Your task to perform on an android device: turn off improve location accuracy Image 0: 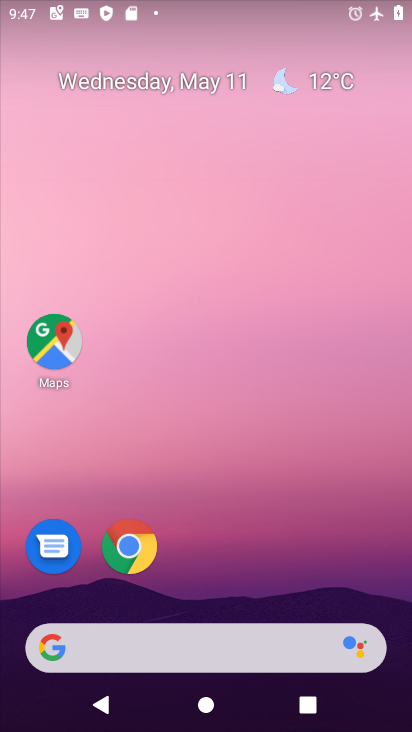
Step 0: drag from (396, 615) to (281, 179)
Your task to perform on an android device: turn off improve location accuracy Image 1: 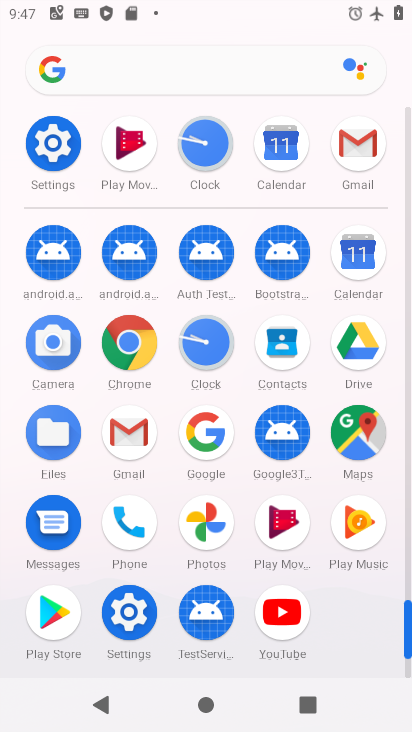
Step 1: click (131, 612)
Your task to perform on an android device: turn off improve location accuracy Image 2: 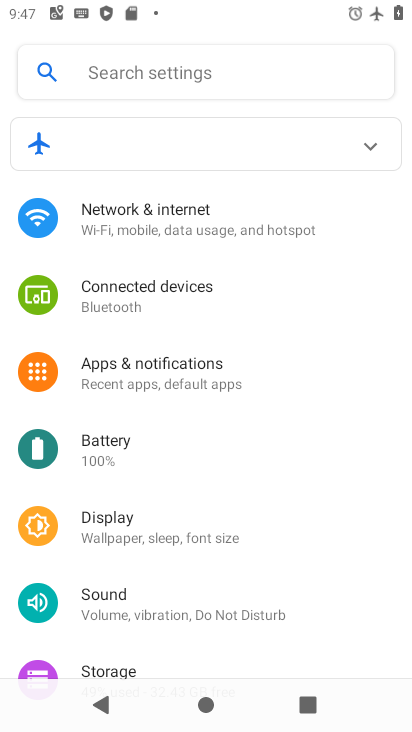
Step 2: drag from (301, 619) to (292, 268)
Your task to perform on an android device: turn off improve location accuracy Image 3: 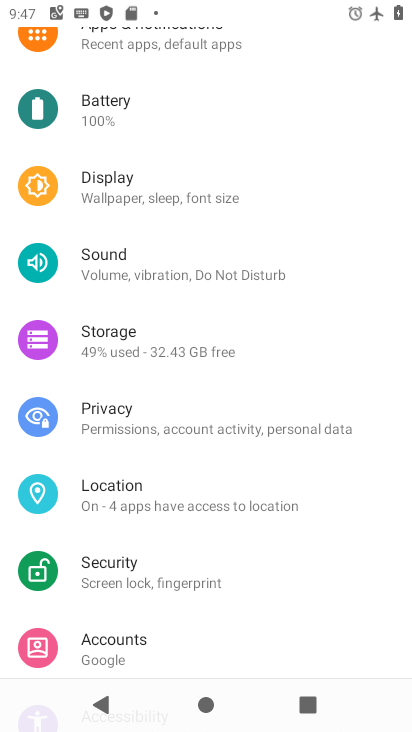
Step 3: click (114, 487)
Your task to perform on an android device: turn off improve location accuracy Image 4: 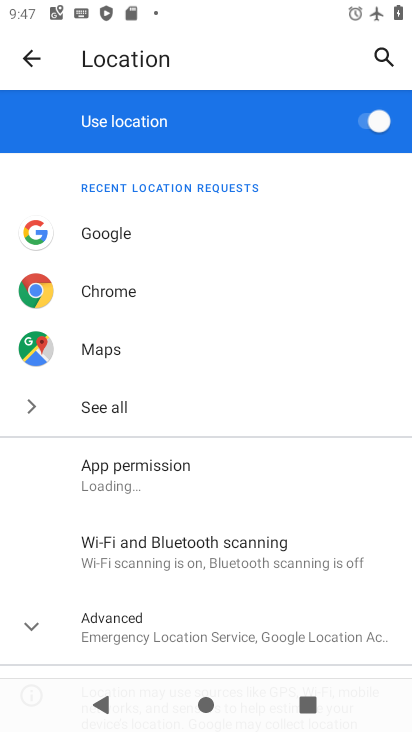
Step 4: click (23, 628)
Your task to perform on an android device: turn off improve location accuracy Image 5: 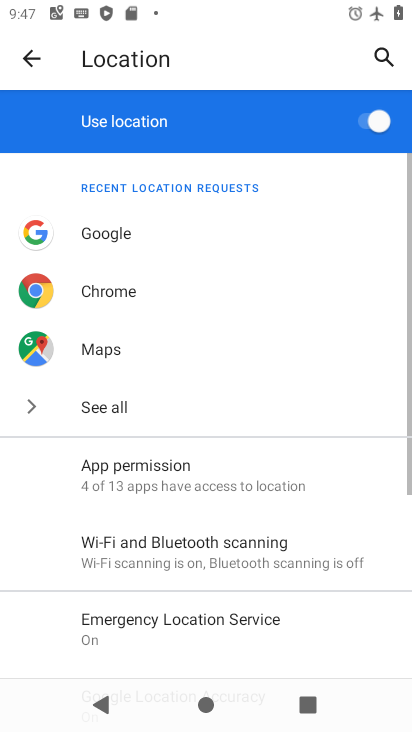
Step 5: drag from (317, 612) to (338, 195)
Your task to perform on an android device: turn off improve location accuracy Image 6: 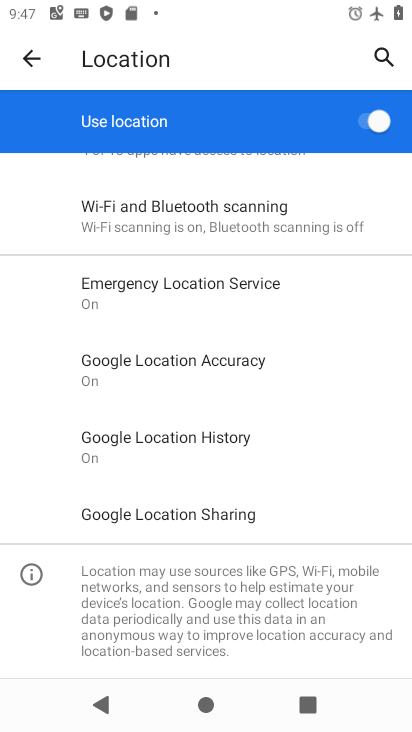
Step 6: click (123, 359)
Your task to perform on an android device: turn off improve location accuracy Image 7: 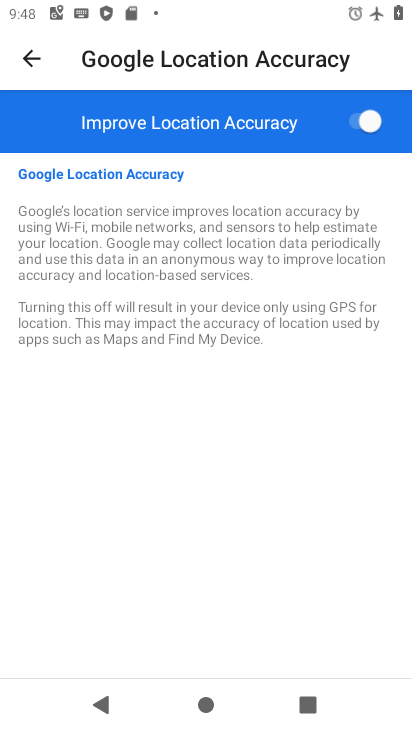
Step 7: click (349, 123)
Your task to perform on an android device: turn off improve location accuracy Image 8: 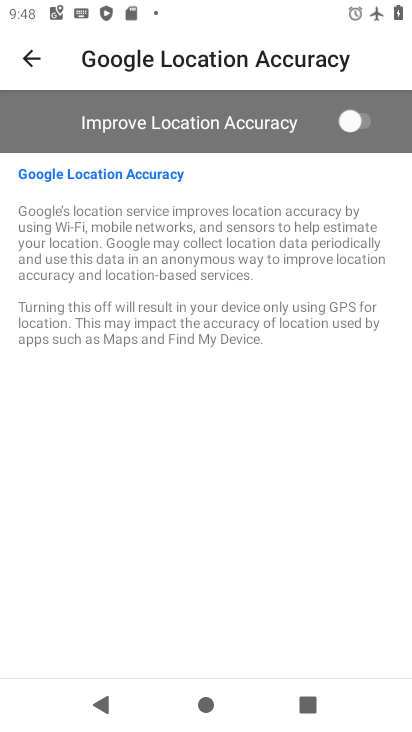
Step 8: task complete